Your task to perform on an android device: change the clock style Image 0: 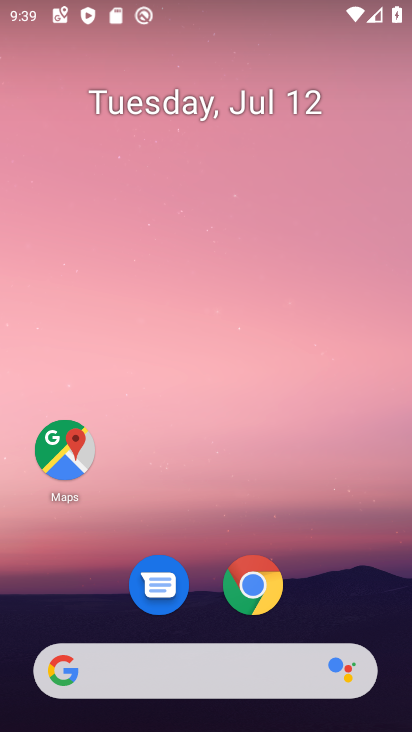
Step 0: drag from (210, 686) to (367, 111)
Your task to perform on an android device: change the clock style Image 1: 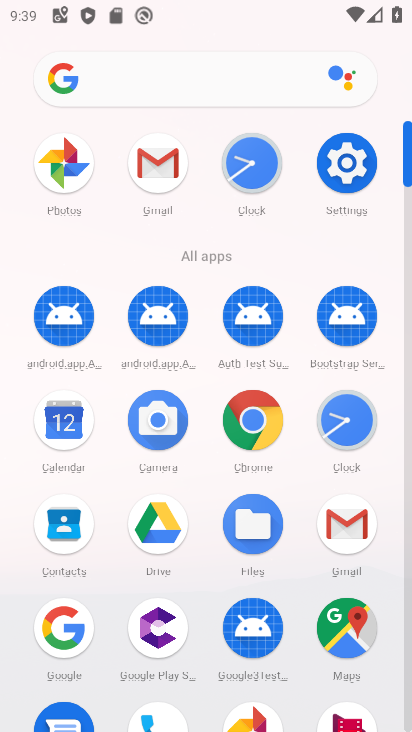
Step 1: click (237, 164)
Your task to perform on an android device: change the clock style Image 2: 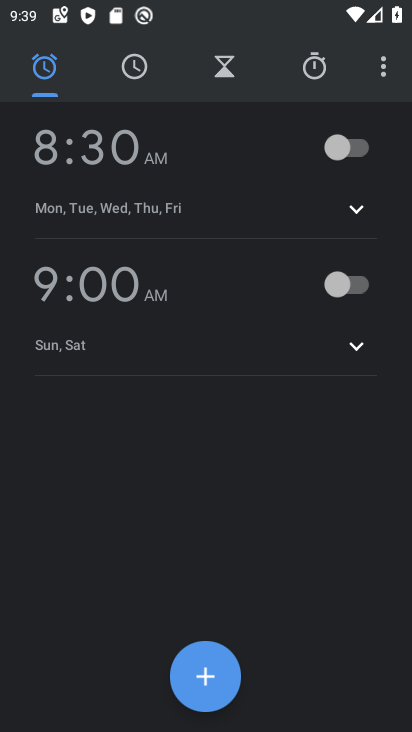
Step 2: click (382, 77)
Your task to perform on an android device: change the clock style Image 3: 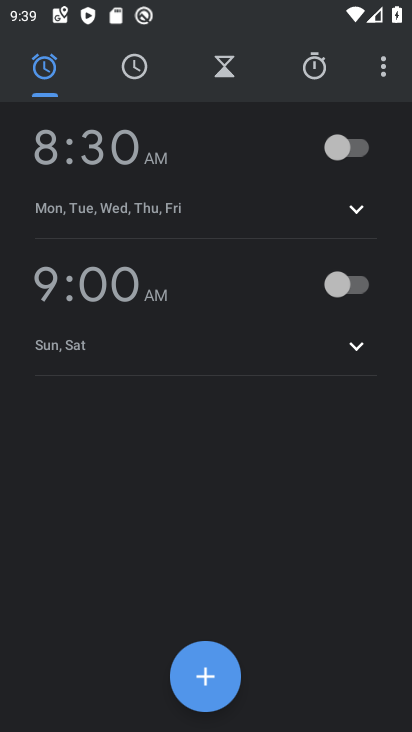
Step 3: click (380, 68)
Your task to perform on an android device: change the clock style Image 4: 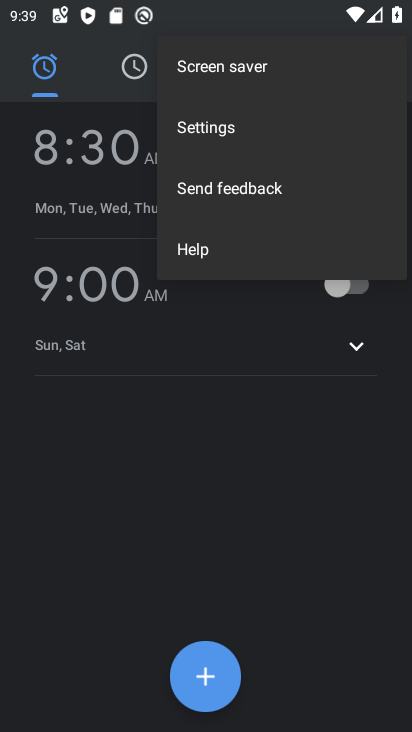
Step 4: click (236, 127)
Your task to perform on an android device: change the clock style Image 5: 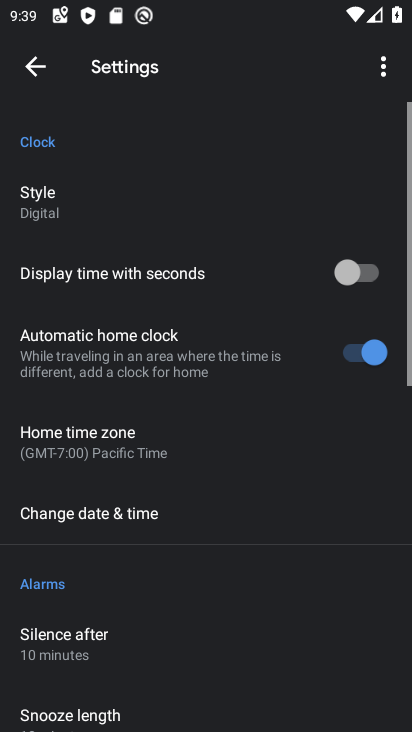
Step 5: click (53, 204)
Your task to perform on an android device: change the clock style Image 6: 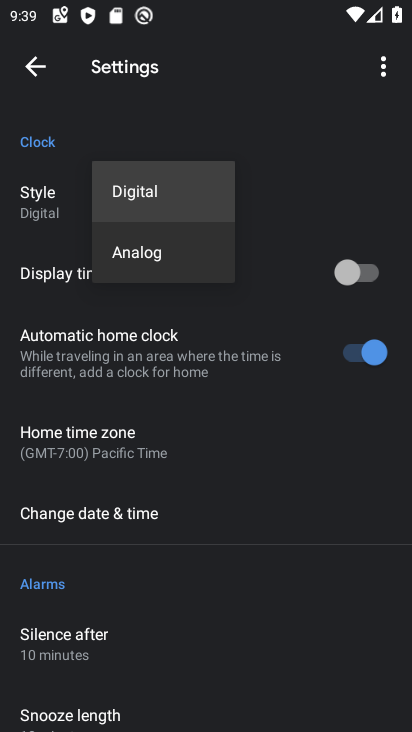
Step 6: click (132, 253)
Your task to perform on an android device: change the clock style Image 7: 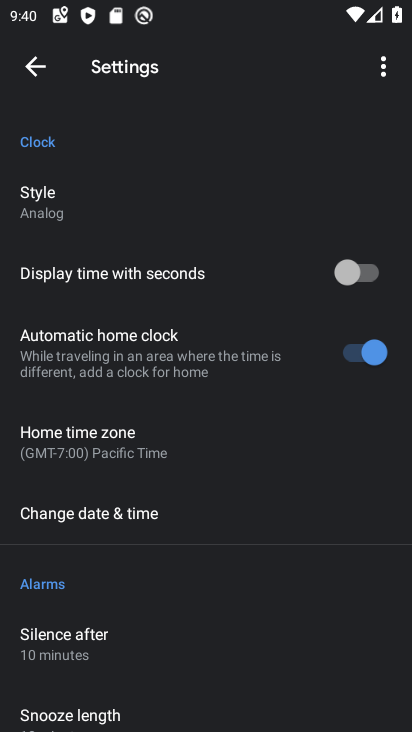
Step 7: task complete